Your task to perform on an android device: turn on the 24-hour format for clock Image 0: 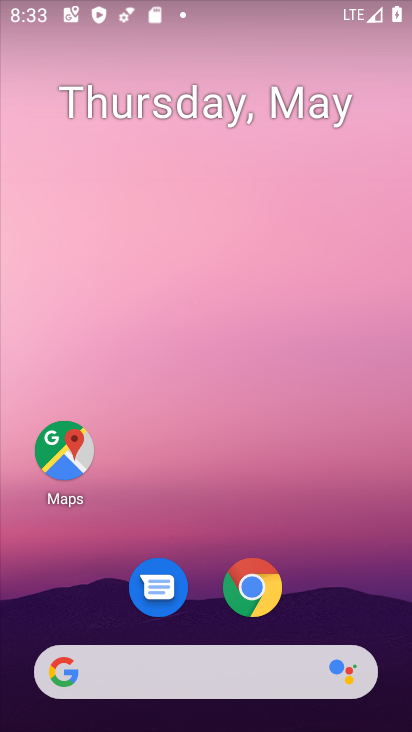
Step 0: drag from (134, 727) to (172, 200)
Your task to perform on an android device: turn on the 24-hour format for clock Image 1: 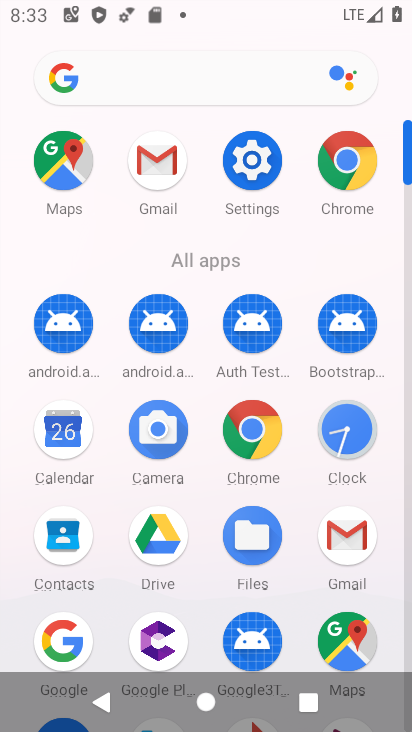
Step 1: click (249, 183)
Your task to perform on an android device: turn on the 24-hour format for clock Image 2: 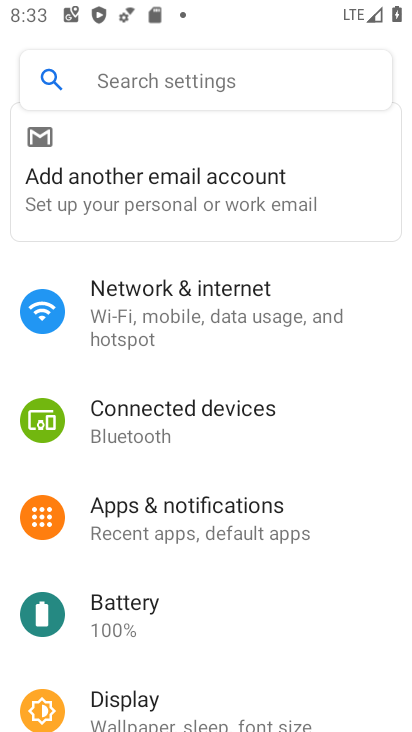
Step 2: drag from (299, 645) to (339, 268)
Your task to perform on an android device: turn on the 24-hour format for clock Image 3: 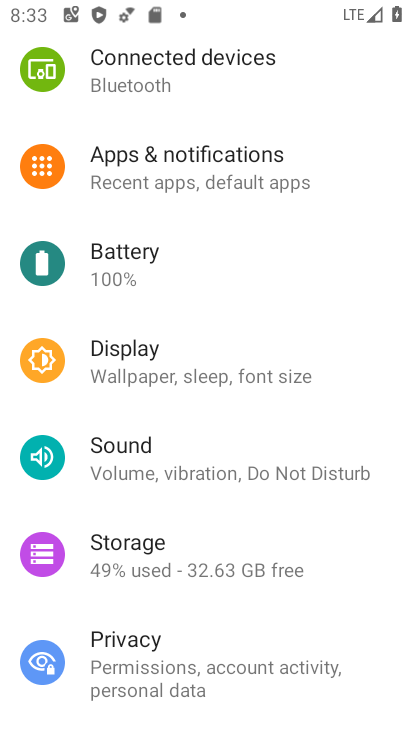
Step 3: drag from (301, 627) to (346, 227)
Your task to perform on an android device: turn on the 24-hour format for clock Image 4: 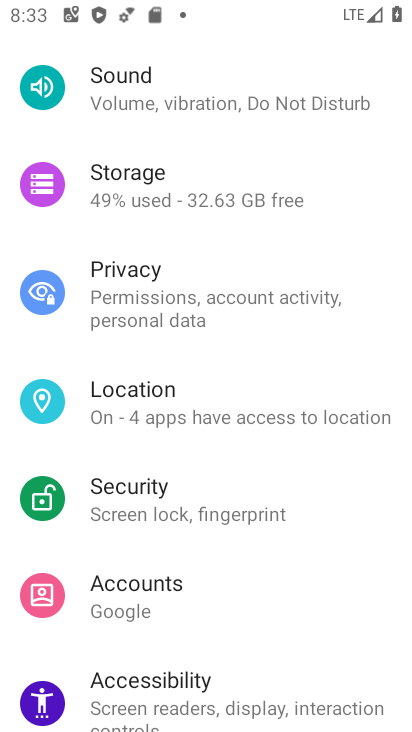
Step 4: drag from (304, 591) to (344, 248)
Your task to perform on an android device: turn on the 24-hour format for clock Image 5: 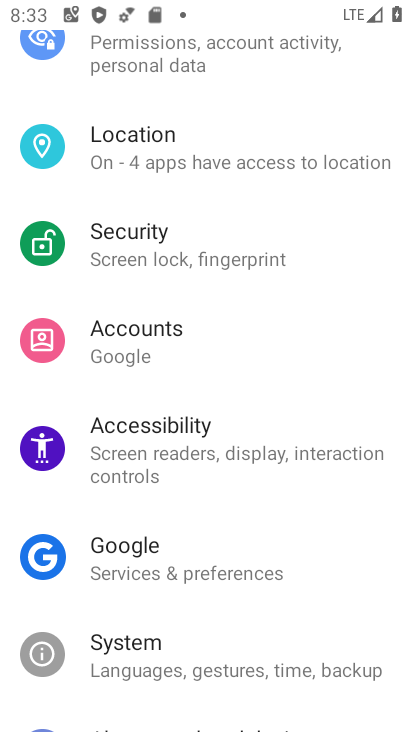
Step 5: click (303, 670)
Your task to perform on an android device: turn on the 24-hour format for clock Image 6: 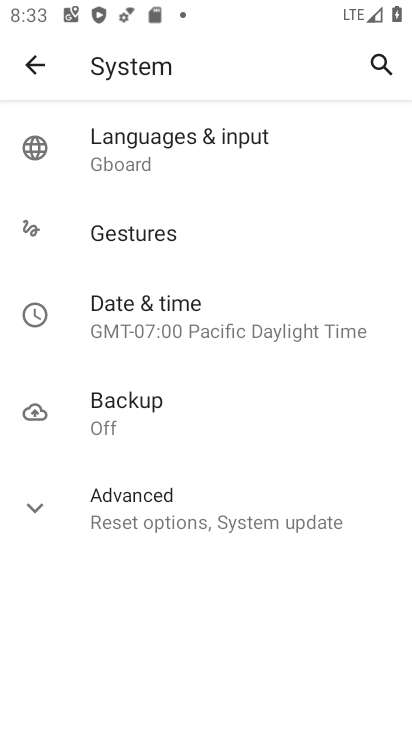
Step 6: click (194, 322)
Your task to perform on an android device: turn on the 24-hour format for clock Image 7: 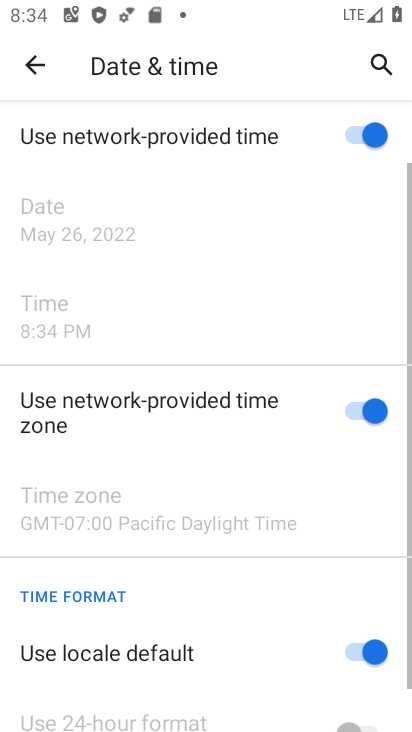
Step 7: drag from (260, 651) to (272, 256)
Your task to perform on an android device: turn on the 24-hour format for clock Image 8: 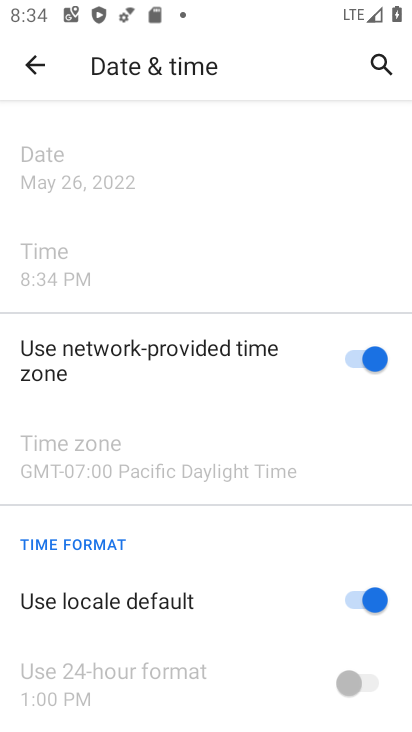
Step 8: click (368, 595)
Your task to perform on an android device: turn on the 24-hour format for clock Image 9: 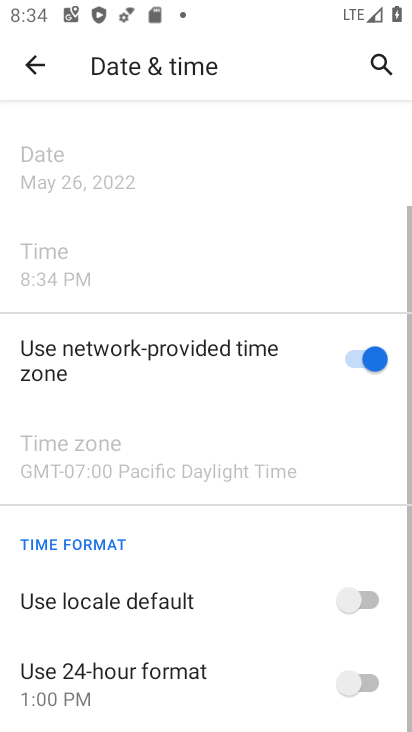
Step 9: click (355, 688)
Your task to perform on an android device: turn on the 24-hour format for clock Image 10: 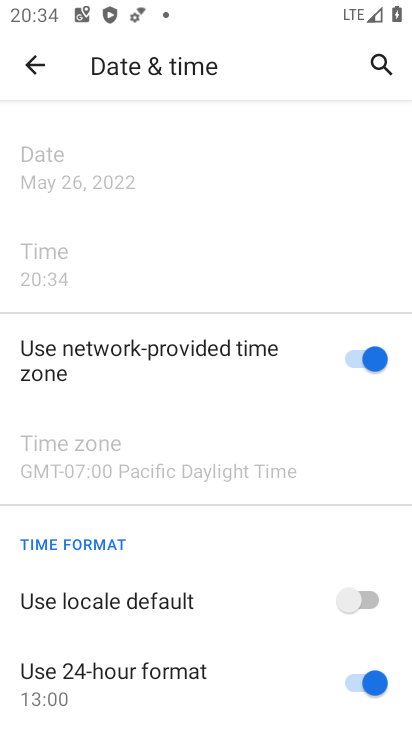
Step 10: task complete